Your task to perform on an android device: toggle sleep mode Image 0: 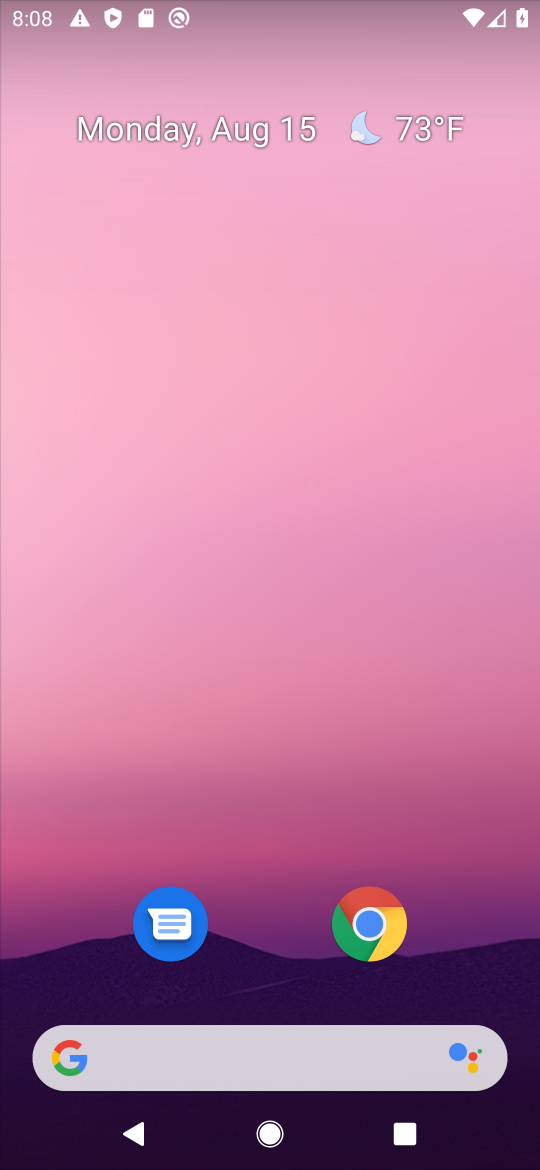
Step 0: drag from (511, 1002) to (472, 136)
Your task to perform on an android device: toggle sleep mode Image 1: 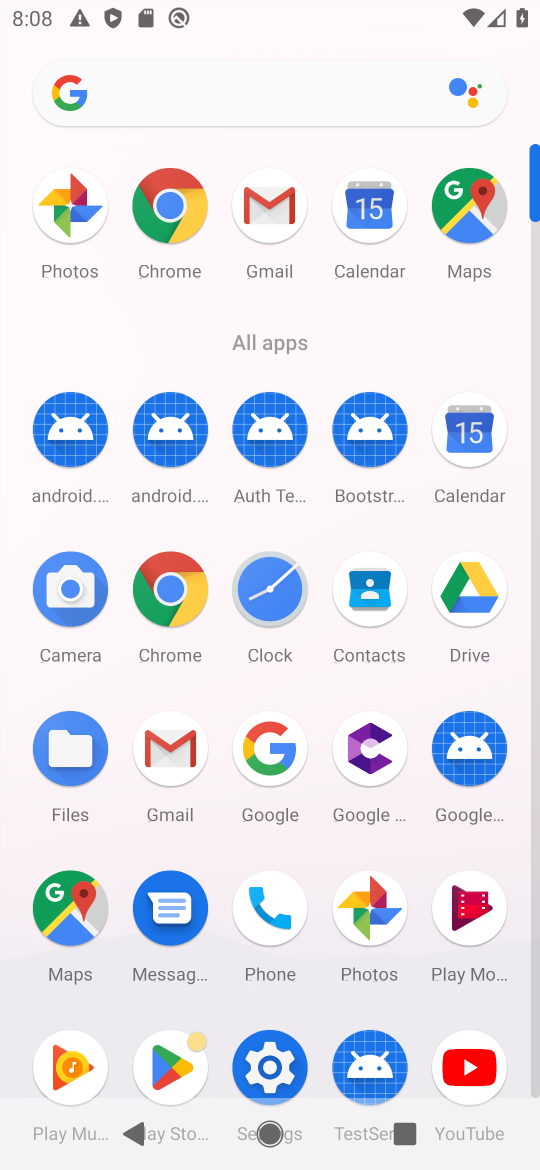
Step 1: click (265, 1065)
Your task to perform on an android device: toggle sleep mode Image 2: 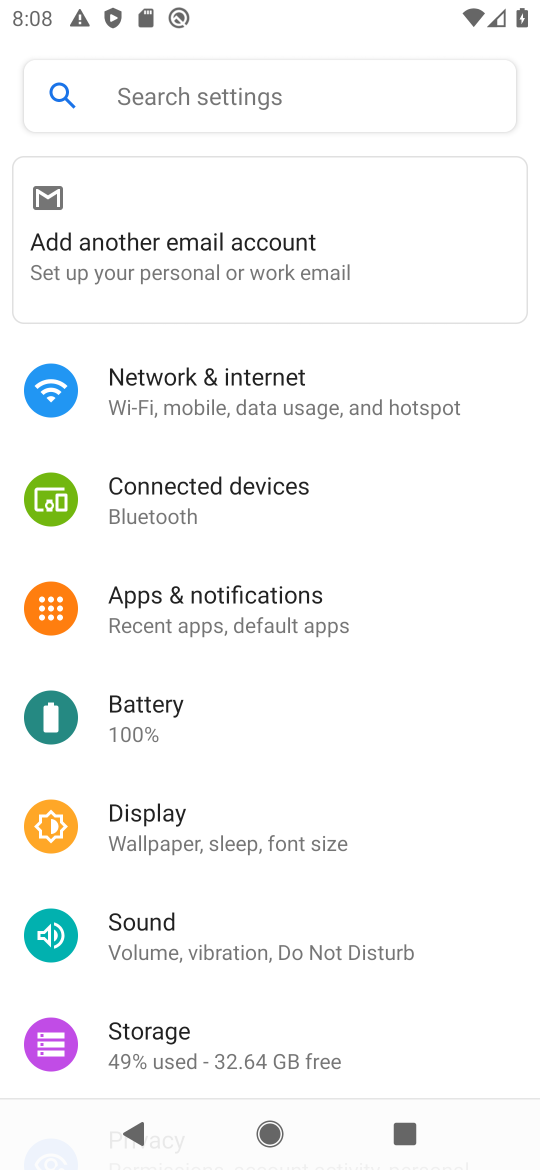
Step 2: click (192, 826)
Your task to perform on an android device: toggle sleep mode Image 3: 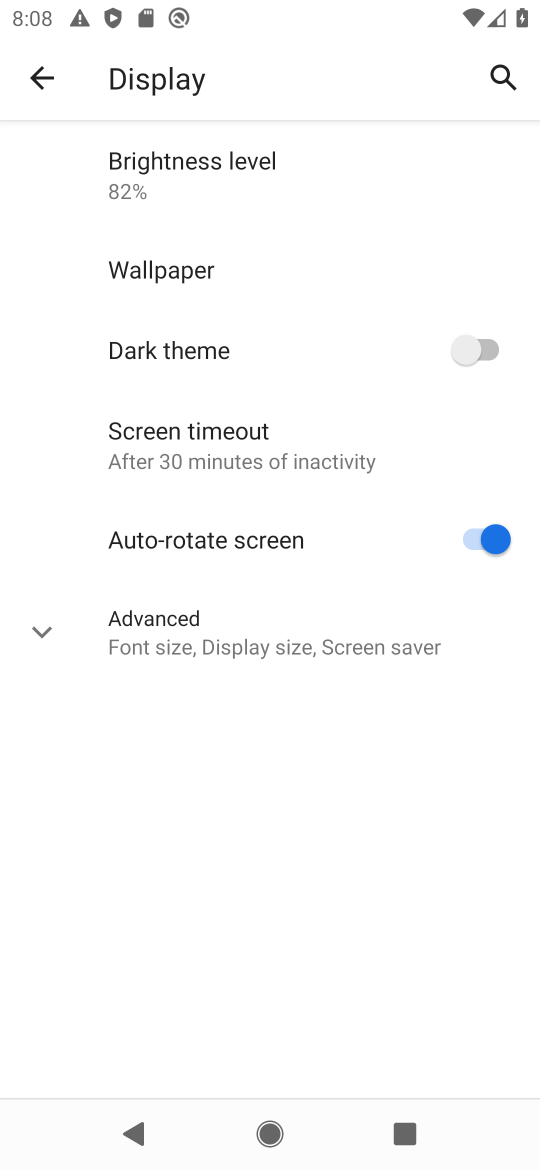
Step 3: click (41, 636)
Your task to perform on an android device: toggle sleep mode Image 4: 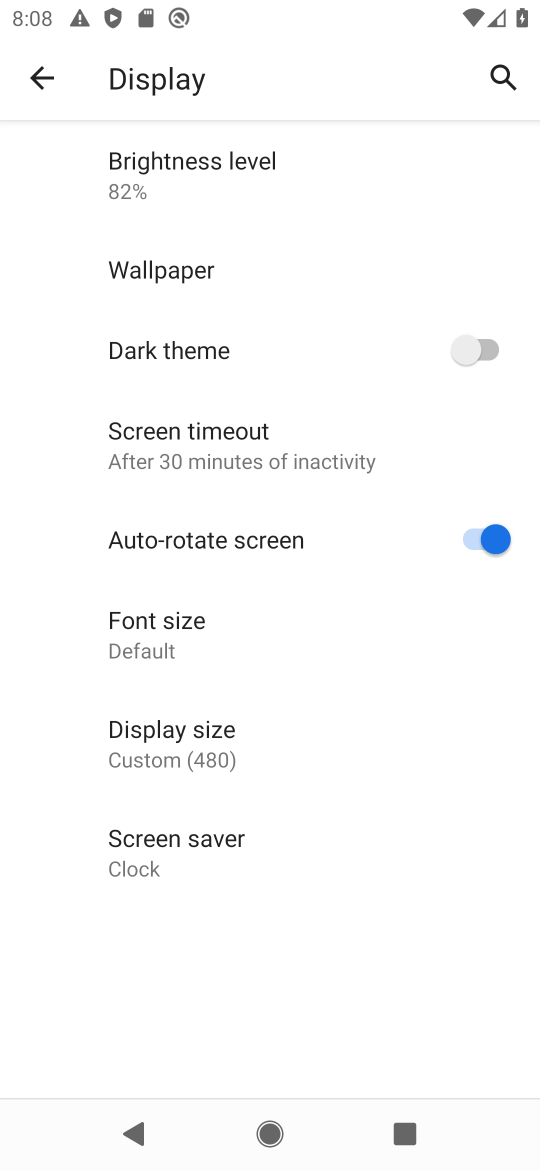
Step 4: task complete